Your task to perform on an android device: Go to Yahoo.com Image 0: 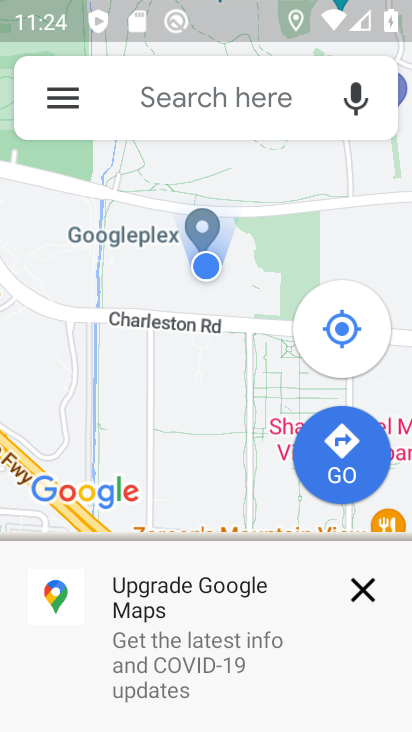
Step 0: press back button
Your task to perform on an android device: Go to Yahoo.com Image 1: 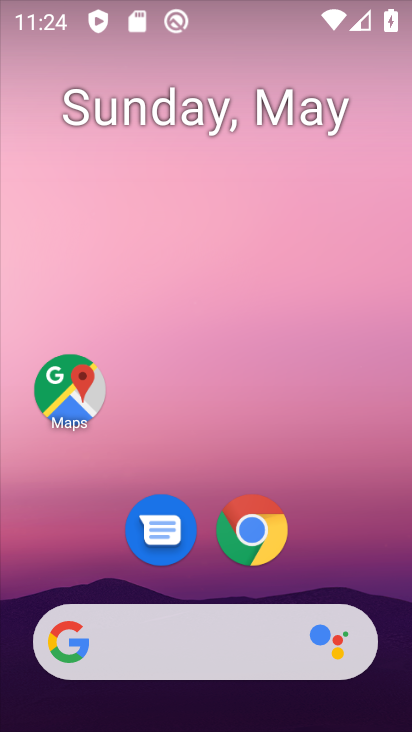
Step 1: click (257, 518)
Your task to perform on an android device: Go to Yahoo.com Image 2: 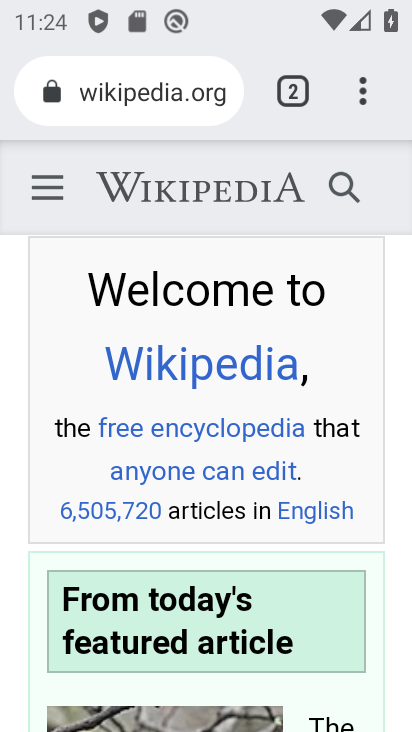
Step 2: click (308, 98)
Your task to perform on an android device: Go to Yahoo.com Image 3: 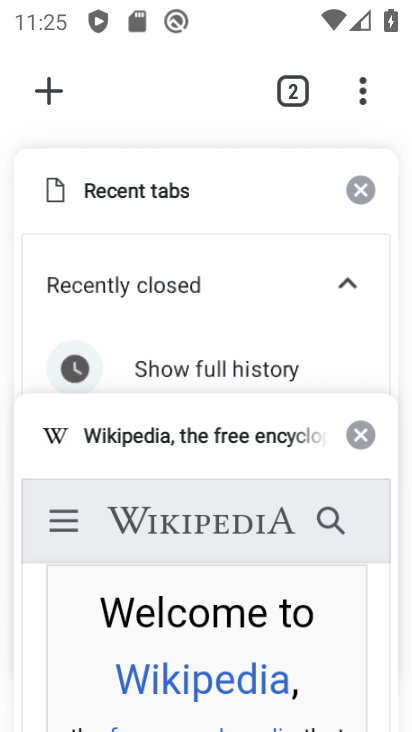
Step 3: click (145, 198)
Your task to perform on an android device: Go to Yahoo.com Image 4: 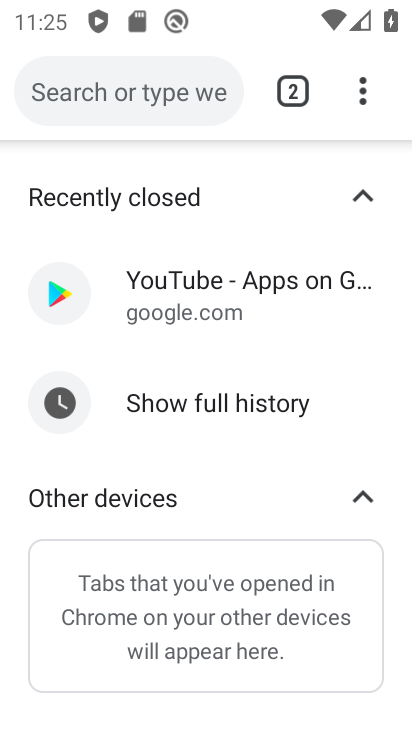
Step 4: click (289, 89)
Your task to perform on an android device: Go to Yahoo.com Image 5: 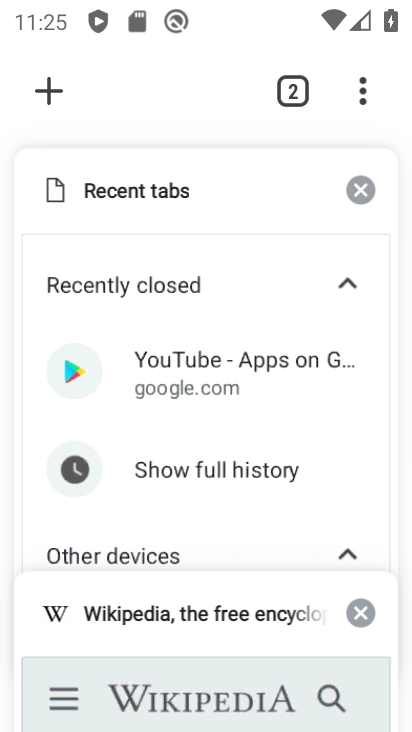
Step 5: click (39, 80)
Your task to perform on an android device: Go to Yahoo.com Image 6: 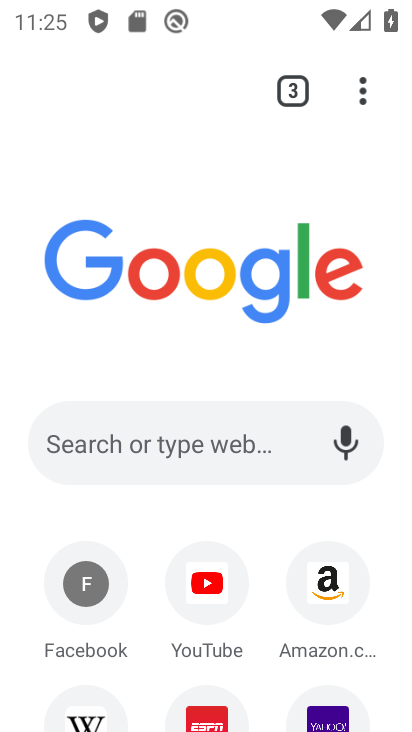
Step 6: click (320, 710)
Your task to perform on an android device: Go to Yahoo.com Image 7: 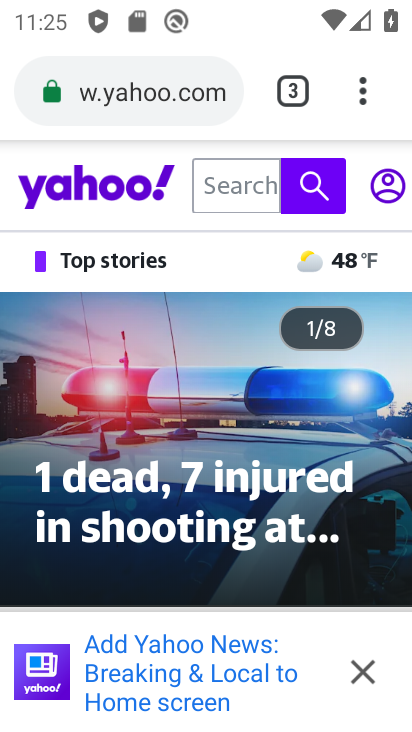
Step 7: task complete